Your task to perform on an android device: Go to internet settings Image 0: 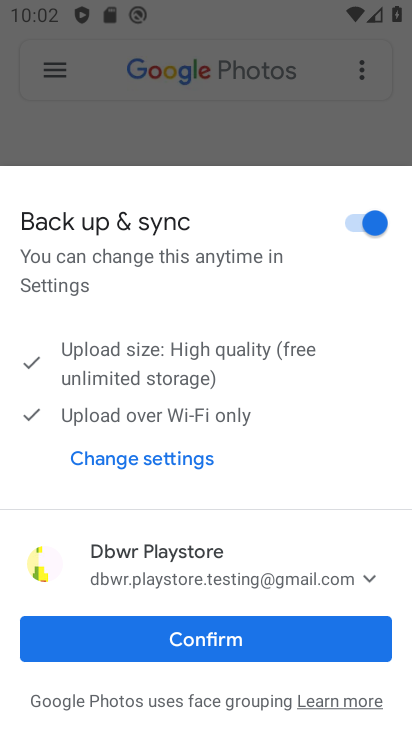
Step 0: click (204, 642)
Your task to perform on an android device: Go to internet settings Image 1: 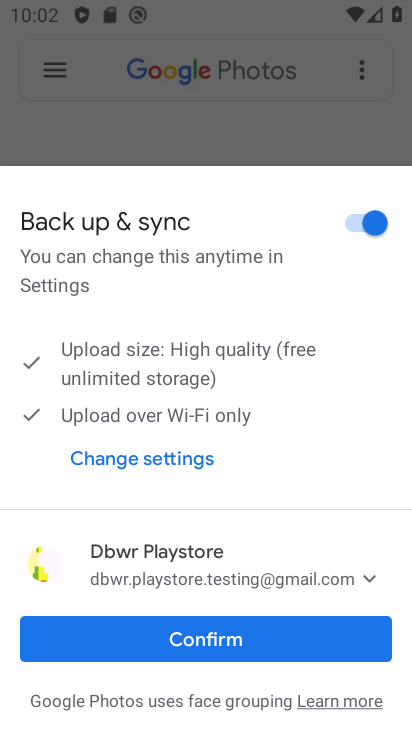
Step 1: click (207, 641)
Your task to perform on an android device: Go to internet settings Image 2: 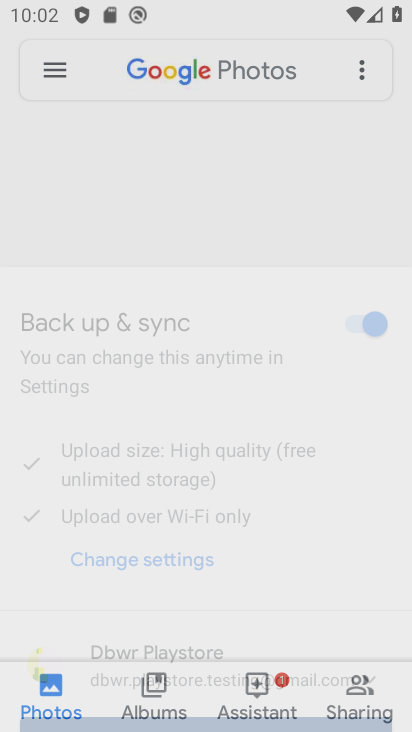
Step 2: click (216, 671)
Your task to perform on an android device: Go to internet settings Image 3: 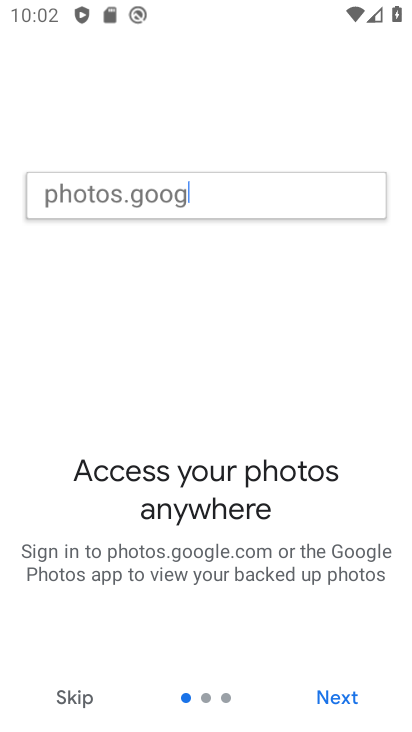
Step 3: press back button
Your task to perform on an android device: Go to internet settings Image 4: 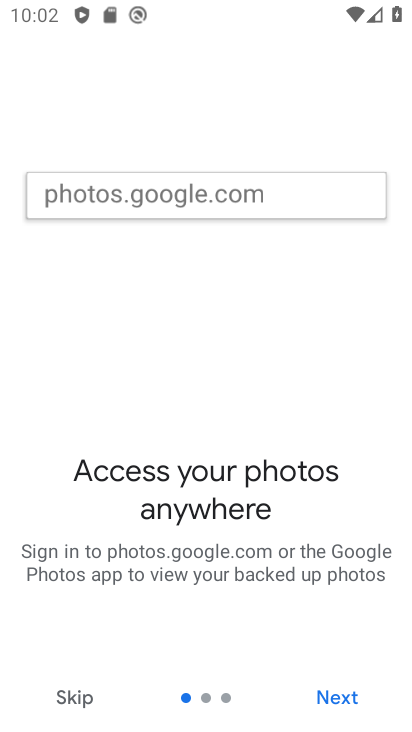
Step 4: press back button
Your task to perform on an android device: Go to internet settings Image 5: 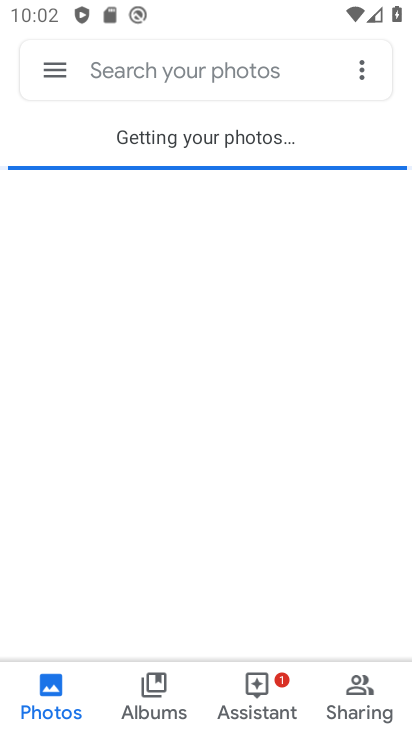
Step 5: press back button
Your task to perform on an android device: Go to internet settings Image 6: 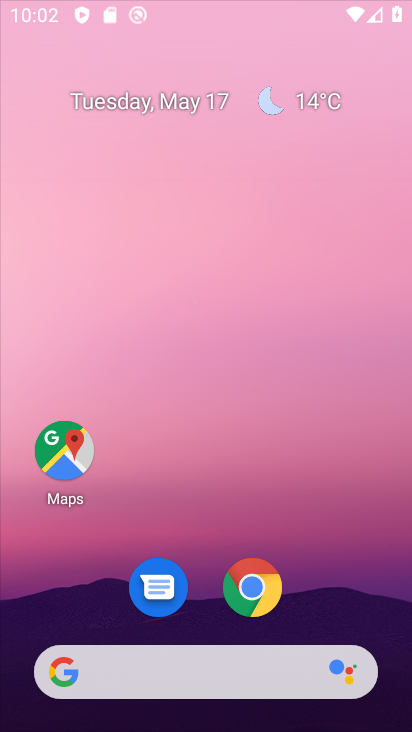
Step 6: press back button
Your task to perform on an android device: Go to internet settings Image 7: 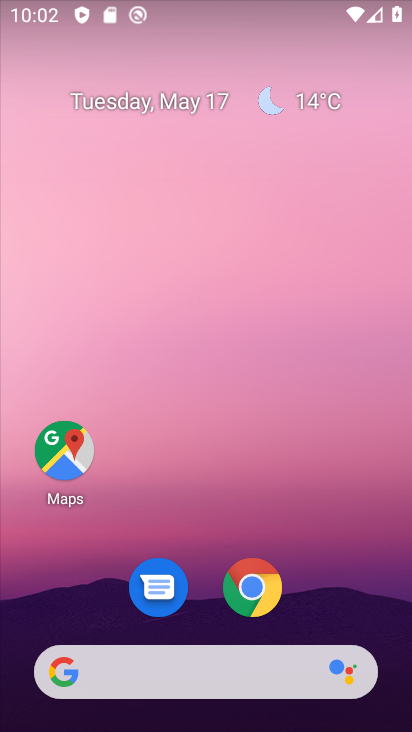
Step 7: press back button
Your task to perform on an android device: Go to internet settings Image 8: 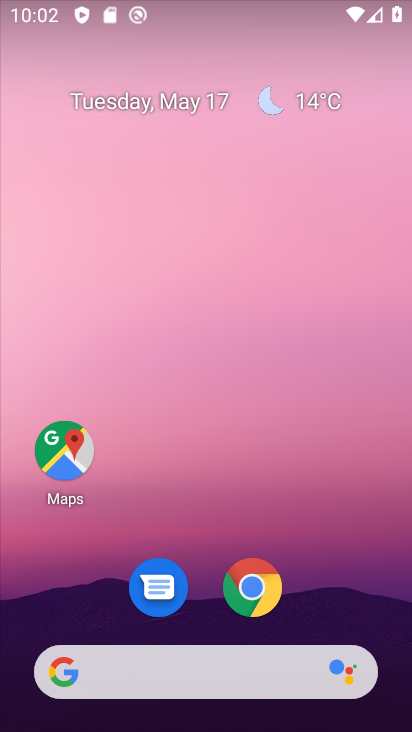
Step 8: press home button
Your task to perform on an android device: Go to internet settings Image 9: 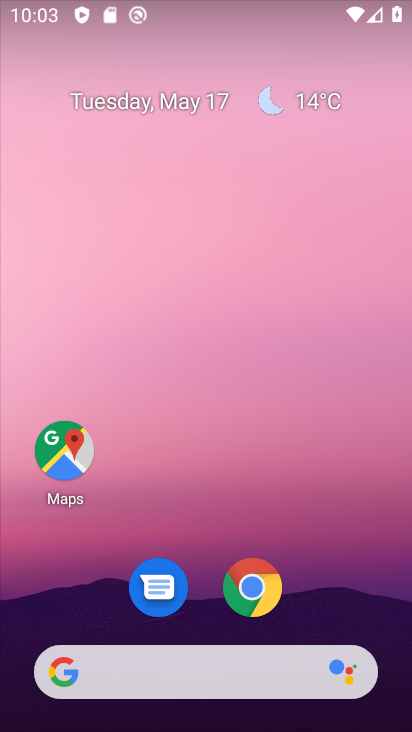
Step 9: drag from (355, 639) to (186, 116)
Your task to perform on an android device: Go to internet settings Image 10: 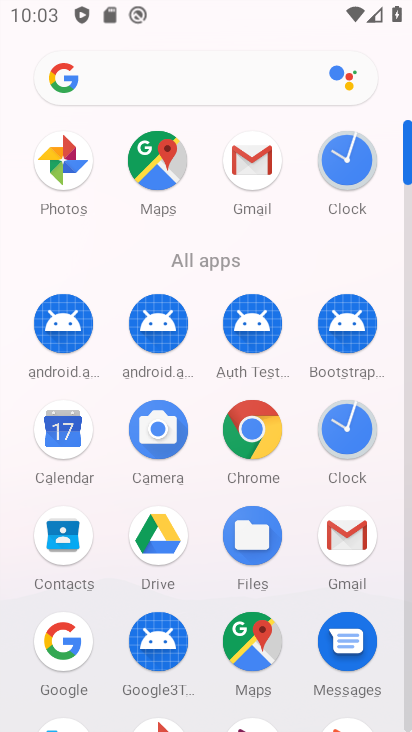
Step 10: drag from (308, 578) to (199, 47)
Your task to perform on an android device: Go to internet settings Image 11: 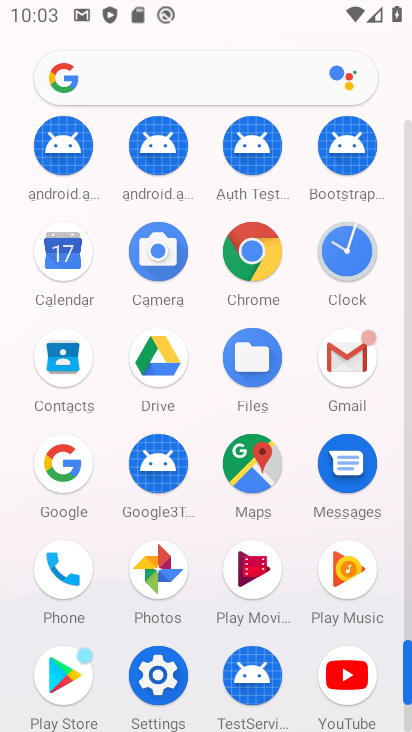
Step 11: click (161, 671)
Your task to perform on an android device: Go to internet settings Image 12: 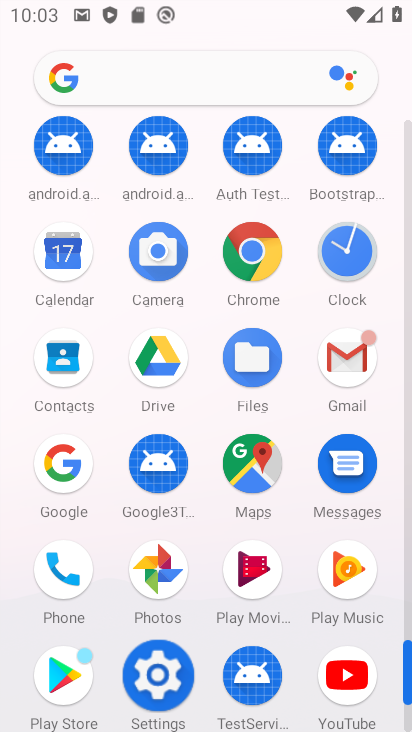
Step 12: click (161, 663)
Your task to perform on an android device: Go to internet settings Image 13: 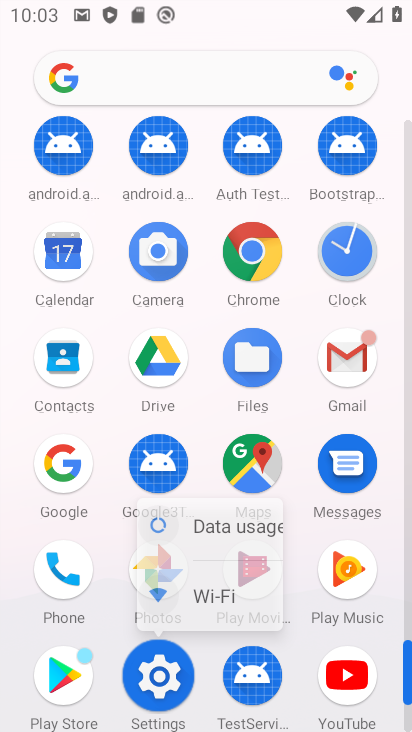
Step 13: click (161, 663)
Your task to perform on an android device: Go to internet settings Image 14: 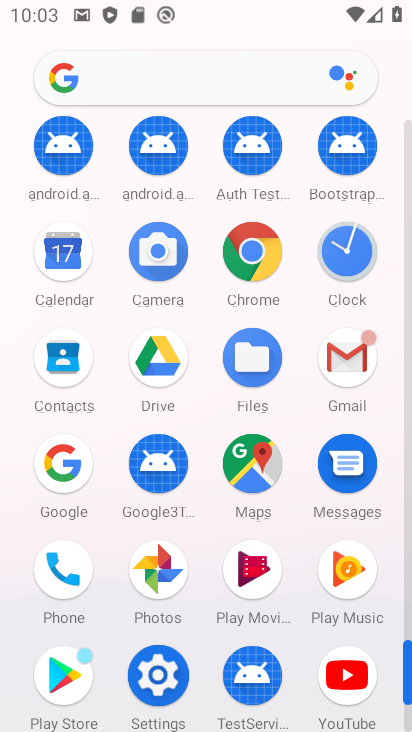
Step 14: click (161, 664)
Your task to perform on an android device: Go to internet settings Image 15: 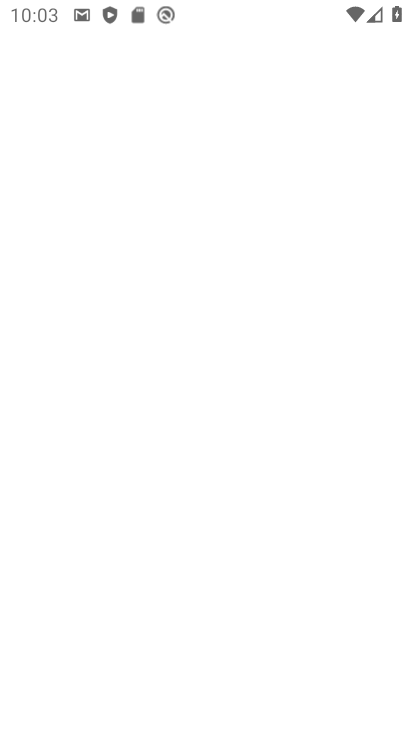
Step 15: click (165, 659)
Your task to perform on an android device: Go to internet settings Image 16: 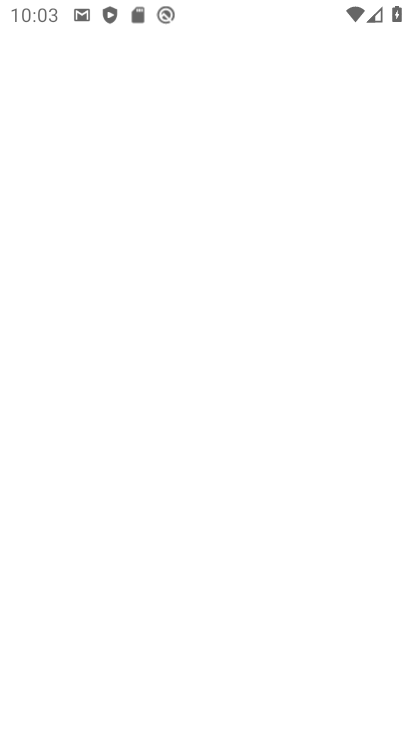
Step 16: click (165, 652)
Your task to perform on an android device: Go to internet settings Image 17: 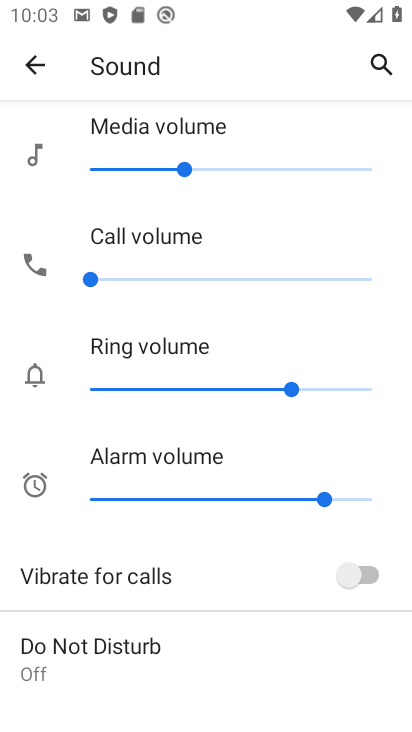
Step 17: click (171, 321)
Your task to perform on an android device: Go to internet settings Image 18: 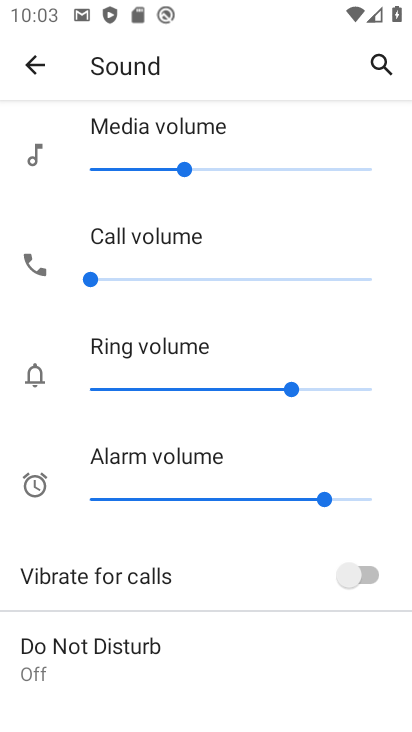
Step 18: click (22, 78)
Your task to perform on an android device: Go to internet settings Image 19: 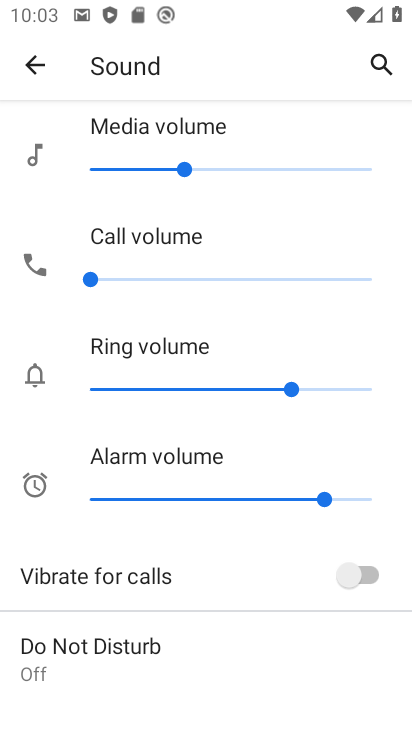
Step 19: click (29, 64)
Your task to perform on an android device: Go to internet settings Image 20: 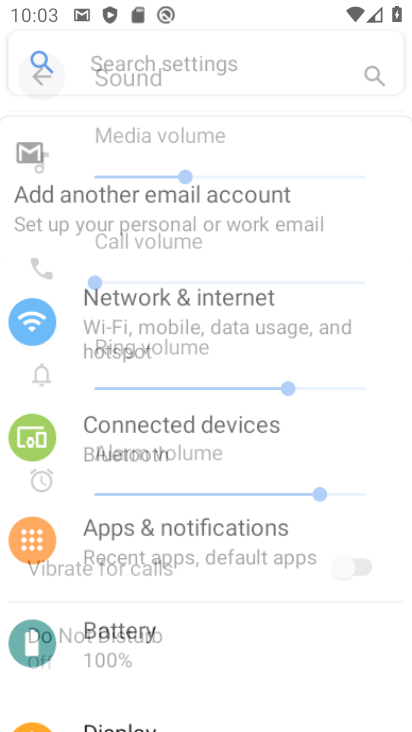
Step 20: click (32, 56)
Your task to perform on an android device: Go to internet settings Image 21: 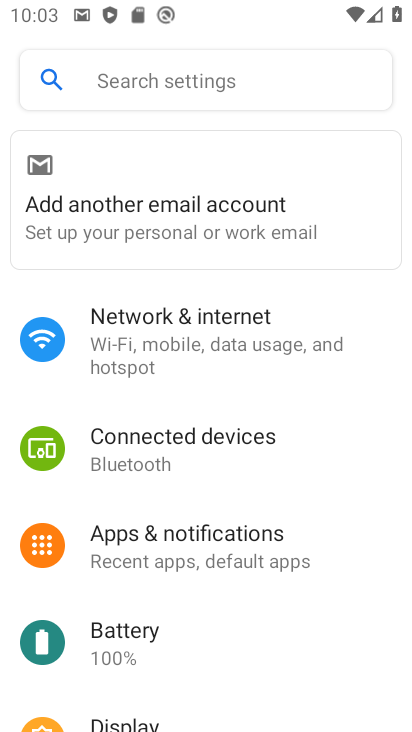
Step 21: click (208, 335)
Your task to perform on an android device: Go to internet settings Image 22: 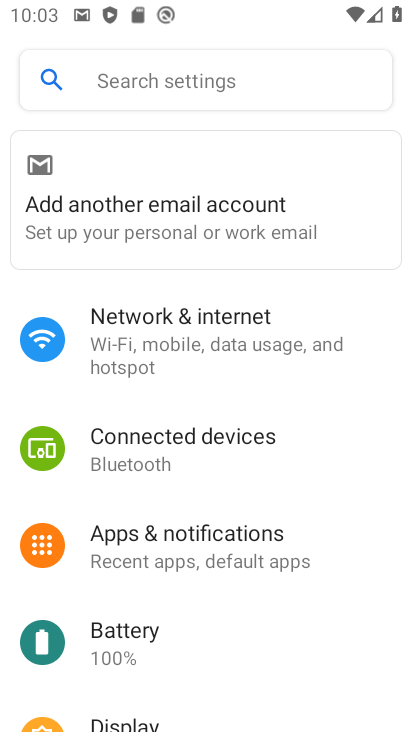
Step 22: click (208, 335)
Your task to perform on an android device: Go to internet settings Image 23: 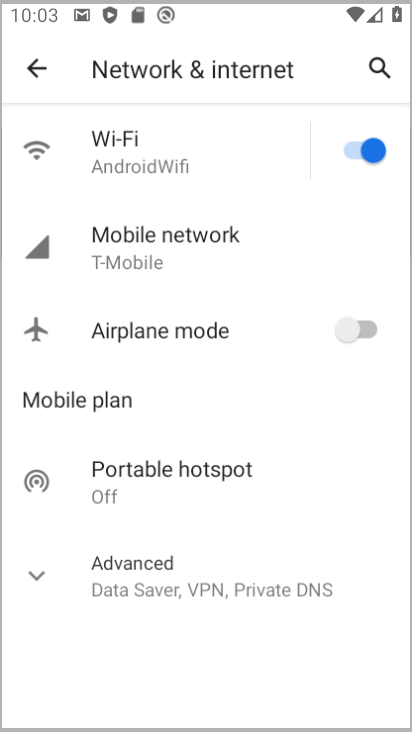
Step 23: click (208, 335)
Your task to perform on an android device: Go to internet settings Image 24: 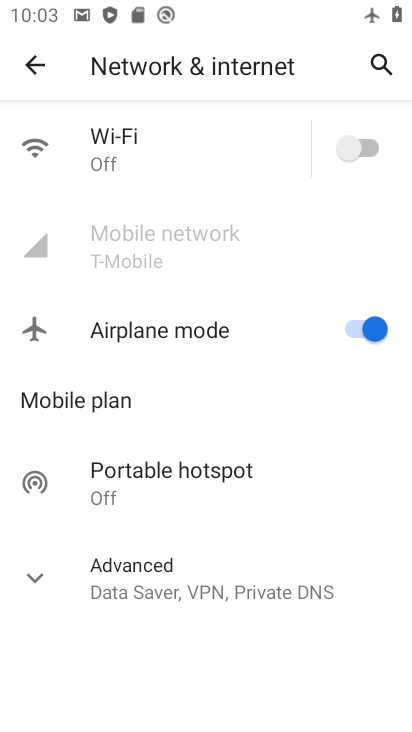
Step 24: task complete